Your task to perform on an android device: toggle data saver in the chrome app Image 0: 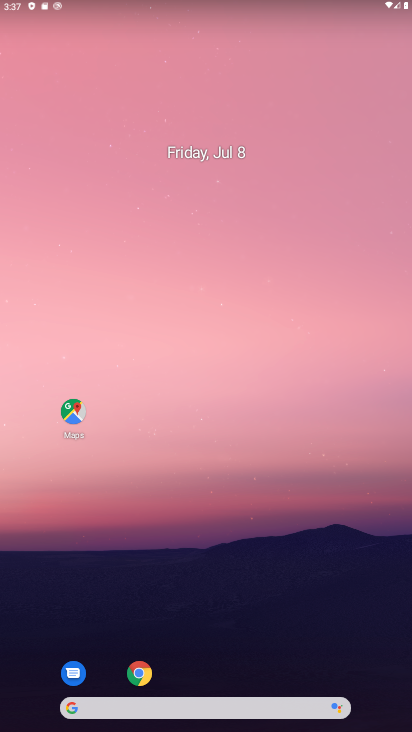
Step 0: click (141, 675)
Your task to perform on an android device: toggle data saver in the chrome app Image 1: 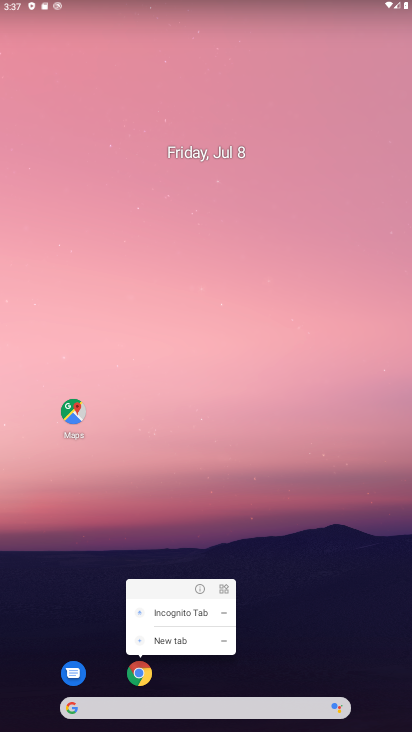
Step 1: click (142, 681)
Your task to perform on an android device: toggle data saver in the chrome app Image 2: 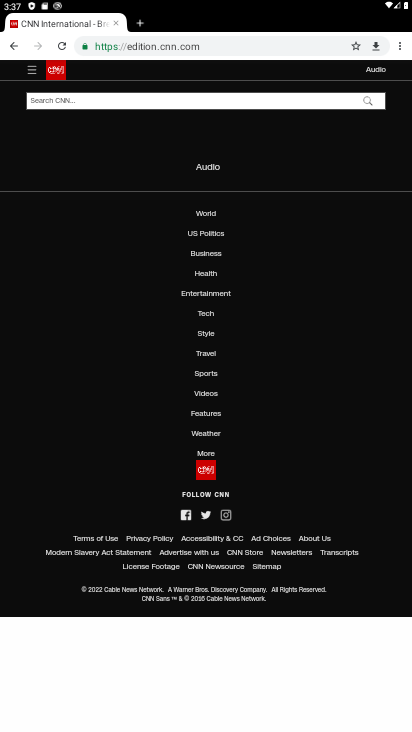
Step 2: drag from (399, 43) to (315, 308)
Your task to perform on an android device: toggle data saver in the chrome app Image 3: 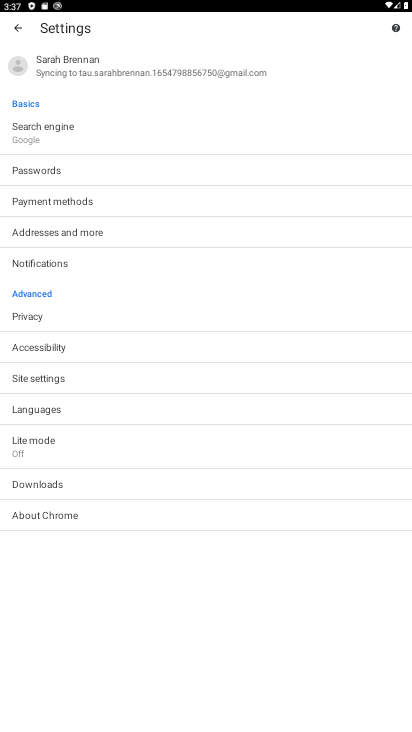
Step 3: click (34, 443)
Your task to perform on an android device: toggle data saver in the chrome app Image 4: 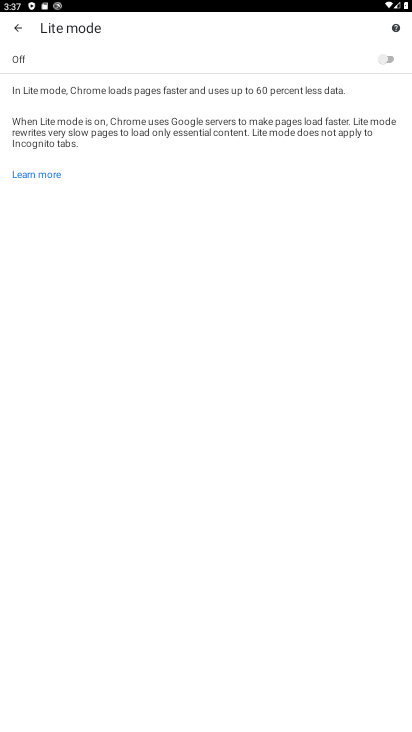
Step 4: click (386, 62)
Your task to perform on an android device: toggle data saver in the chrome app Image 5: 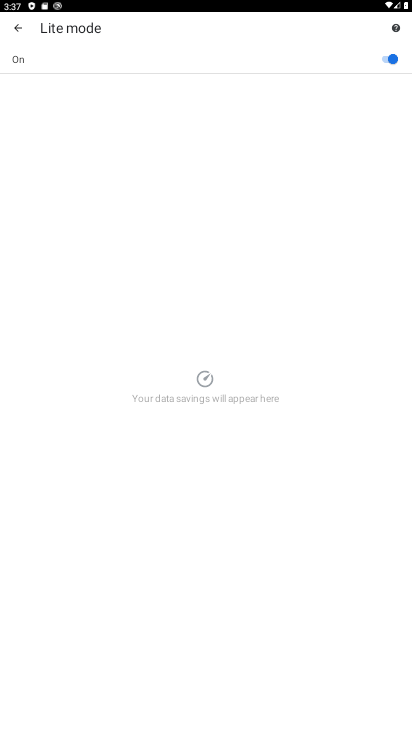
Step 5: task complete